Your task to perform on an android device: open app "eBay: The shopping marketplace" (install if not already installed) Image 0: 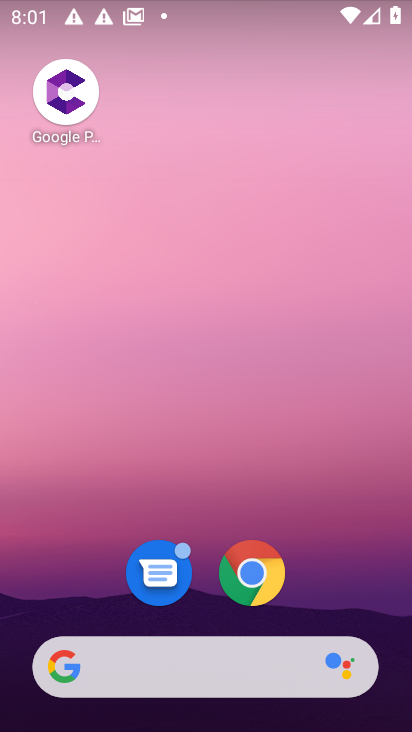
Step 0: drag from (202, 597) to (152, 6)
Your task to perform on an android device: open app "eBay: The shopping marketplace" (install if not already installed) Image 1: 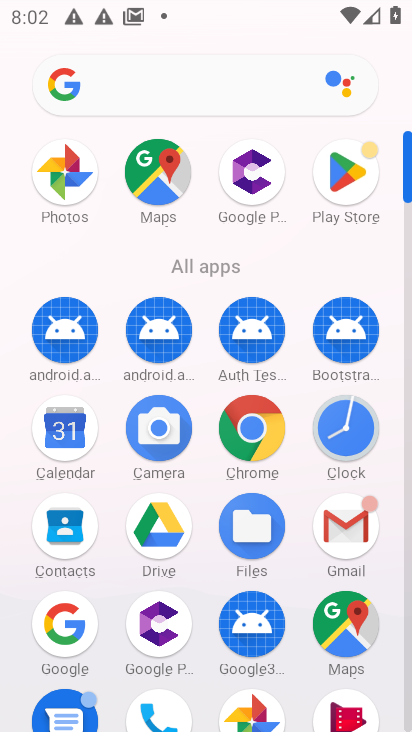
Step 1: click (345, 201)
Your task to perform on an android device: open app "eBay: The shopping marketplace" (install if not already installed) Image 2: 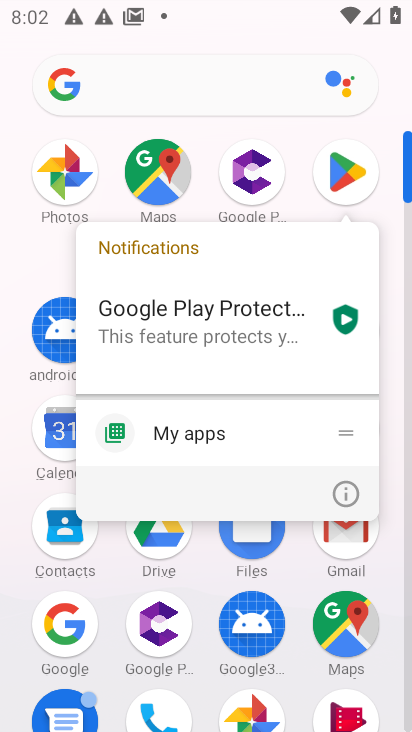
Step 2: click (368, 150)
Your task to perform on an android device: open app "eBay: The shopping marketplace" (install if not already installed) Image 3: 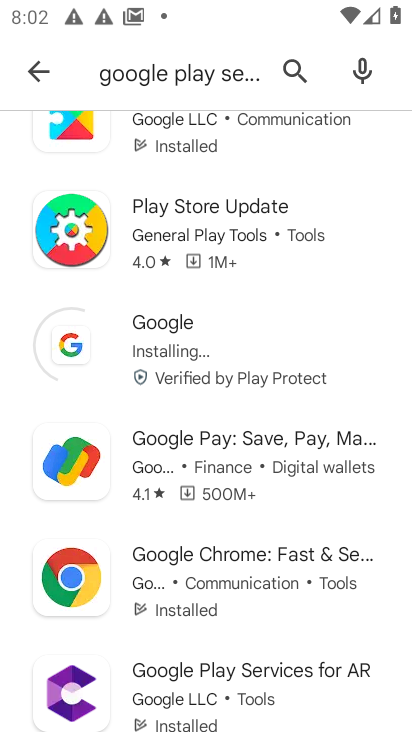
Step 3: click (194, 73)
Your task to perform on an android device: open app "eBay: The shopping marketplace" (install if not already installed) Image 4: 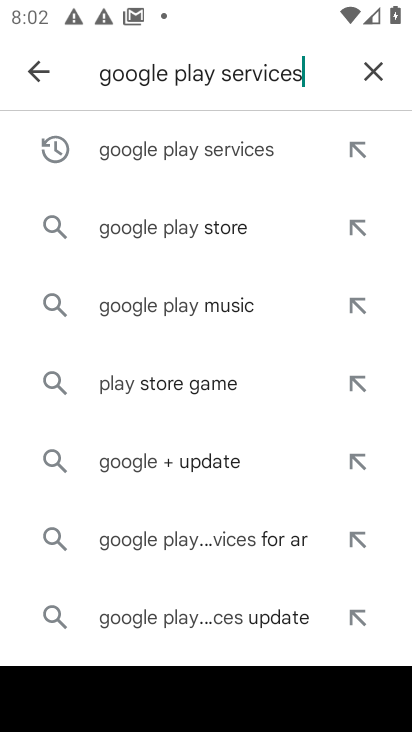
Step 4: click (379, 69)
Your task to perform on an android device: open app "eBay: The shopping marketplace" (install if not already installed) Image 5: 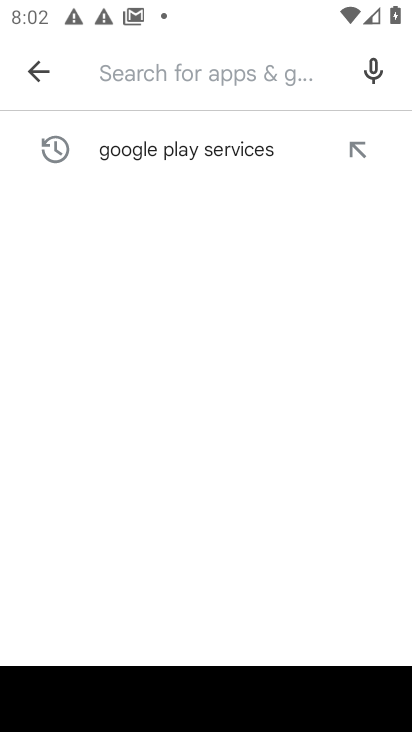
Step 5: type "eBay"
Your task to perform on an android device: open app "eBay: The shopping marketplace" (install if not already installed) Image 6: 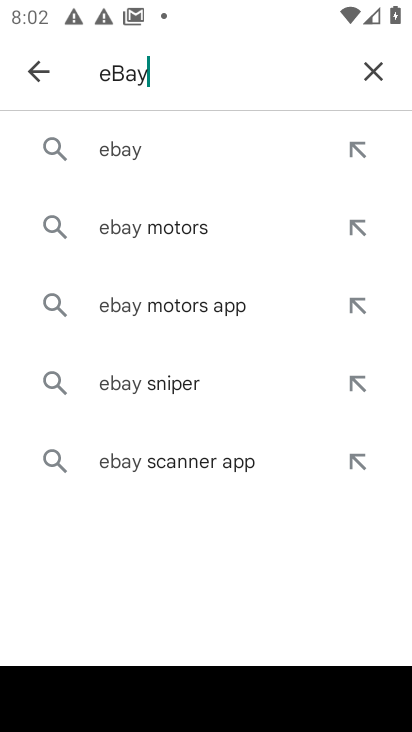
Step 6: click (126, 149)
Your task to perform on an android device: open app "eBay: The shopping marketplace" (install if not already installed) Image 7: 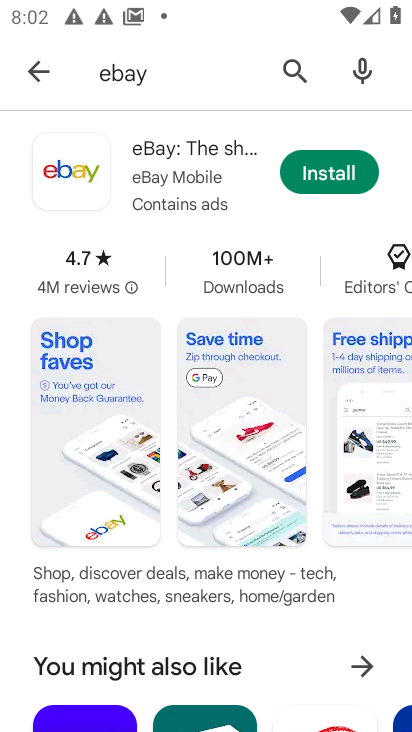
Step 7: click (318, 177)
Your task to perform on an android device: open app "eBay: The shopping marketplace" (install if not already installed) Image 8: 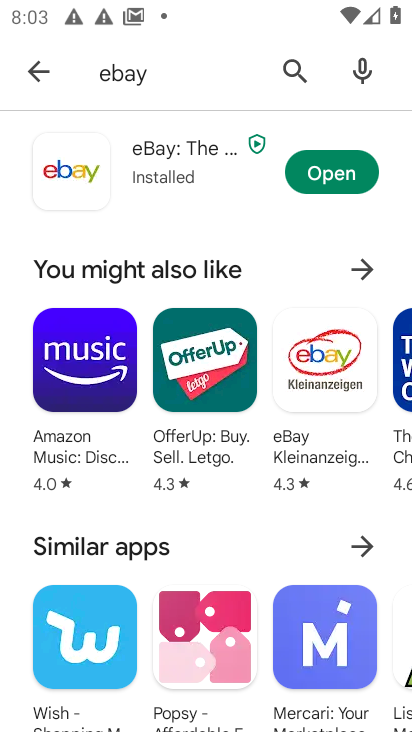
Step 8: click (344, 165)
Your task to perform on an android device: open app "eBay: The shopping marketplace" (install if not already installed) Image 9: 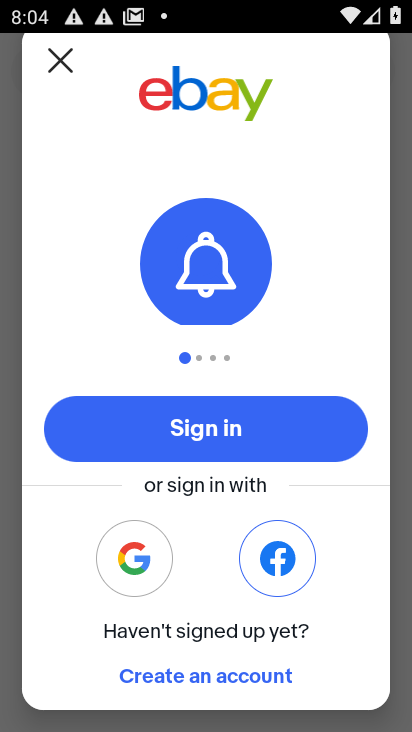
Step 9: click (132, 581)
Your task to perform on an android device: open app "eBay: The shopping marketplace" (install if not already installed) Image 10: 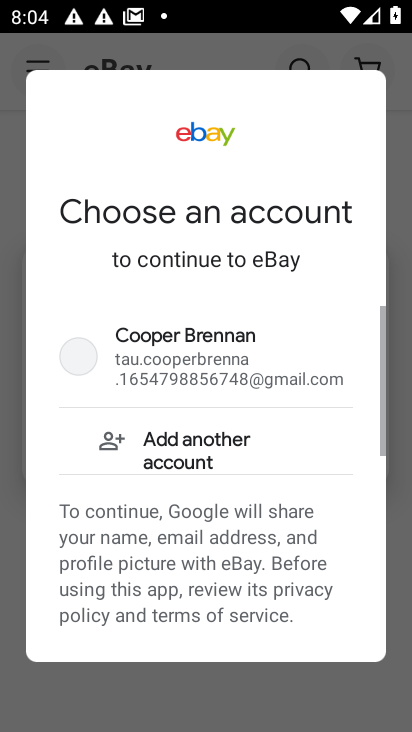
Step 10: click (199, 446)
Your task to perform on an android device: open app "eBay: The shopping marketplace" (install if not already installed) Image 11: 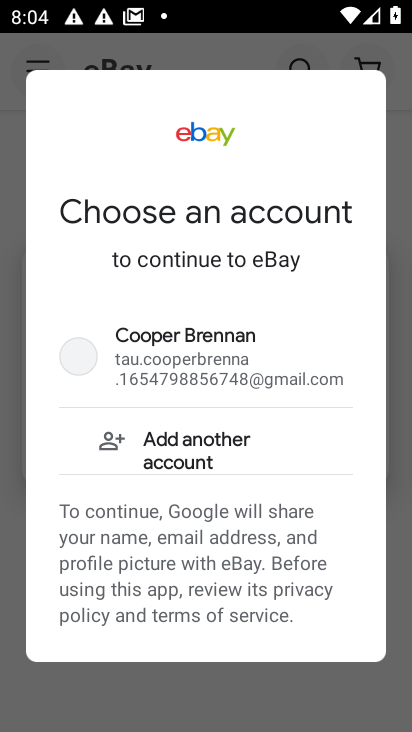
Step 11: click (175, 355)
Your task to perform on an android device: open app "eBay: The shopping marketplace" (install if not already installed) Image 12: 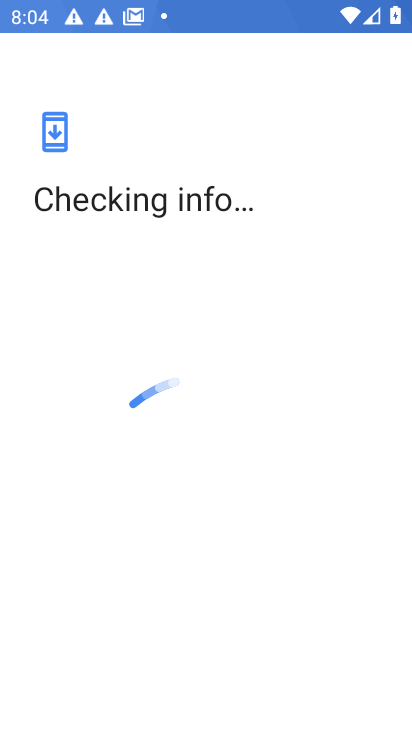
Step 12: press back button
Your task to perform on an android device: open app "eBay: The shopping marketplace" (install if not already installed) Image 13: 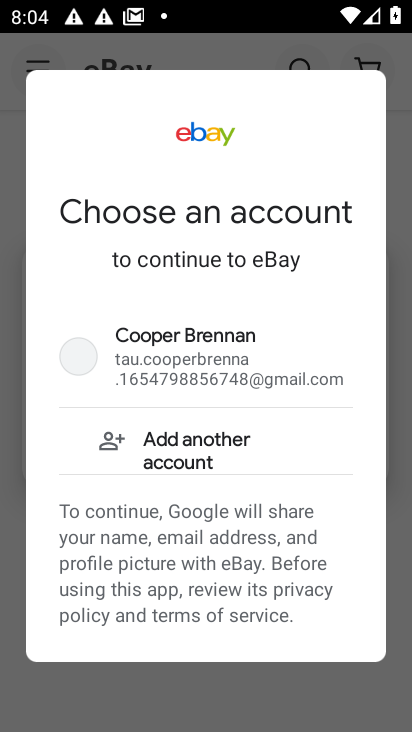
Step 13: click (268, 341)
Your task to perform on an android device: open app "eBay: The shopping marketplace" (install if not already installed) Image 14: 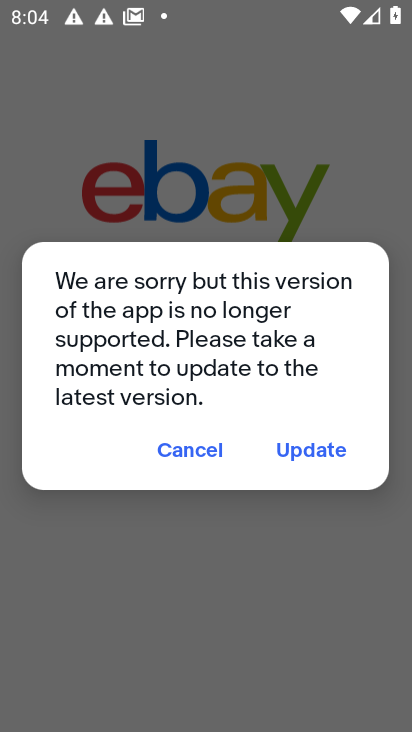
Step 14: click (180, 451)
Your task to perform on an android device: open app "eBay: The shopping marketplace" (install if not already installed) Image 15: 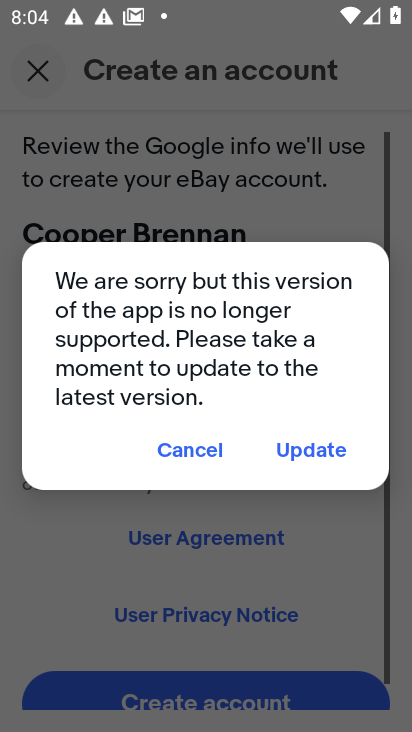
Step 15: task complete